Your task to perform on an android device: change the clock display to digital Image 0: 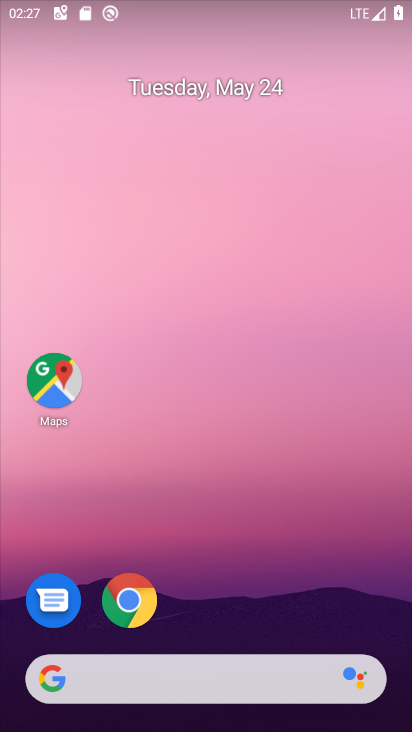
Step 0: drag from (305, 528) to (354, 34)
Your task to perform on an android device: change the clock display to digital Image 1: 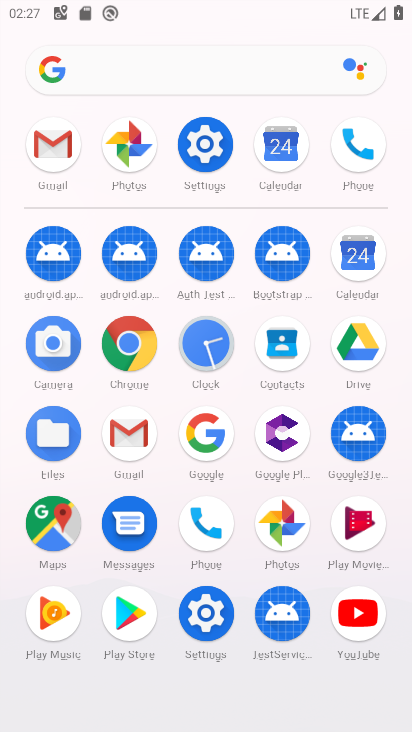
Step 1: click (214, 351)
Your task to perform on an android device: change the clock display to digital Image 2: 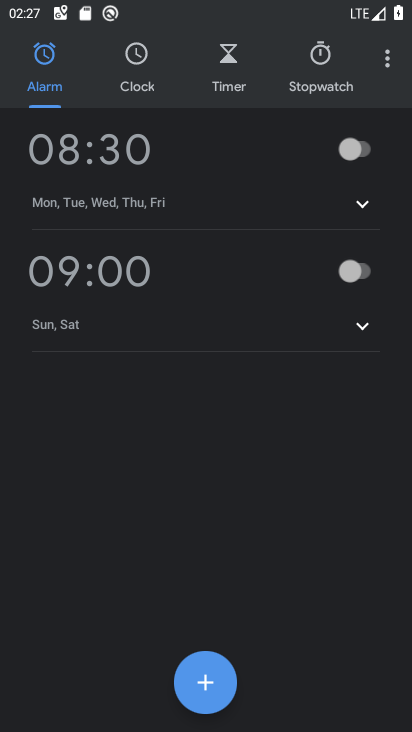
Step 2: click (374, 40)
Your task to perform on an android device: change the clock display to digital Image 3: 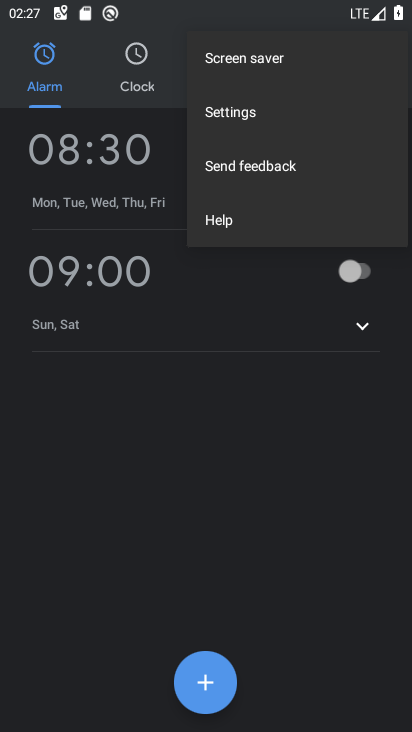
Step 3: click (308, 114)
Your task to perform on an android device: change the clock display to digital Image 4: 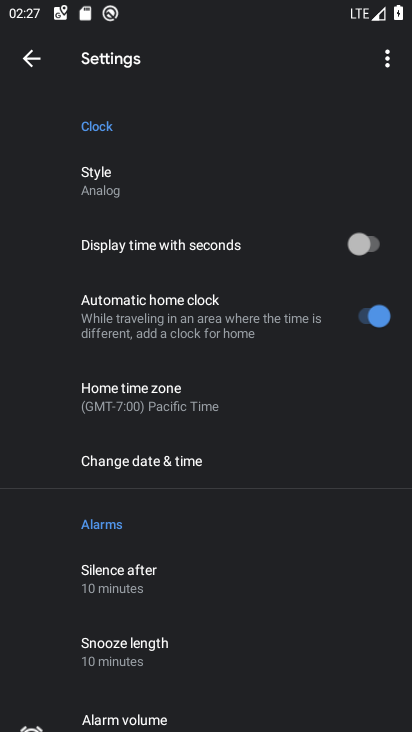
Step 4: click (216, 460)
Your task to perform on an android device: change the clock display to digital Image 5: 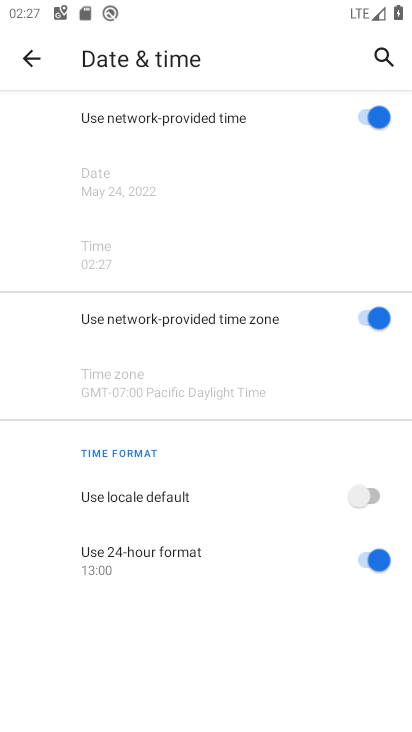
Step 5: press back button
Your task to perform on an android device: change the clock display to digital Image 6: 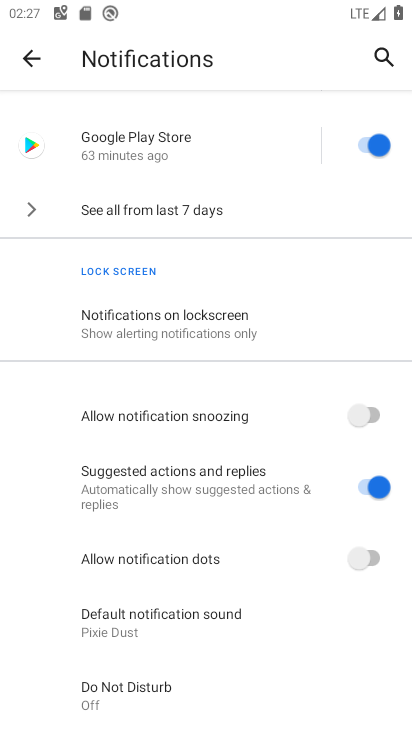
Step 6: drag from (178, 406) to (182, 28)
Your task to perform on an android device: change the clock display to digital Image 7: 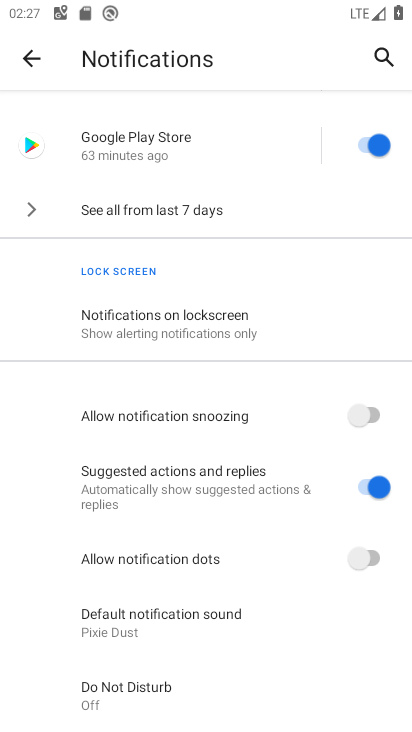
Step 7: drag from (206, 207) to (205, 507)
Your task to perform on an android device: change the clock display to digital Image 8: 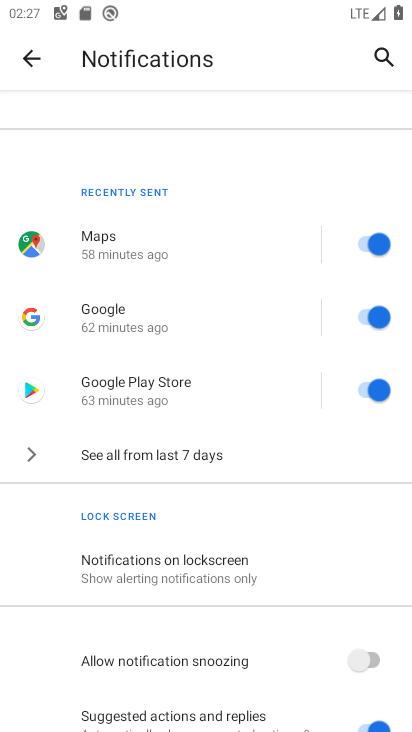
Step 8: drag from (208, 228) to (207, 517)
Your task to perform on an android device: change the clock display to digital Image 9: 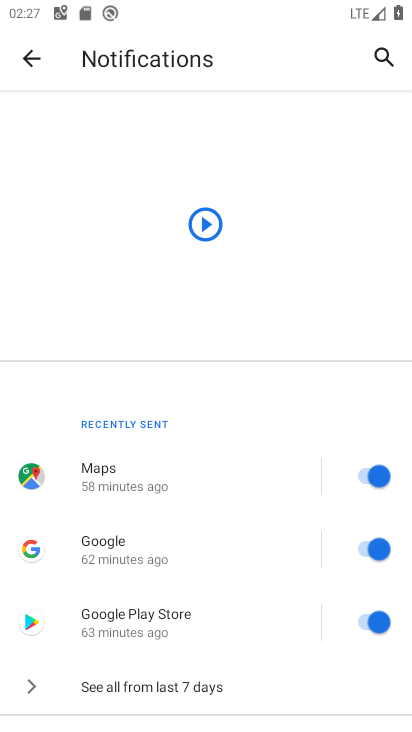
Step 9: press back button
Your task to perform on an android device: change the clock display to digital Image 10: 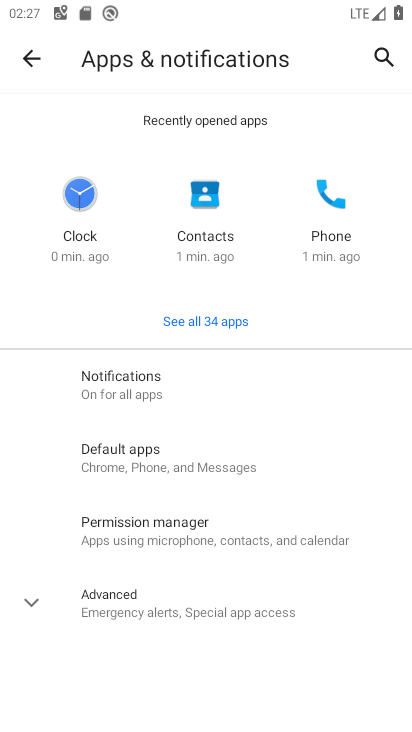
Step 10: press back button
Your task to perform on an android device: change the clock display to digital Image 11: 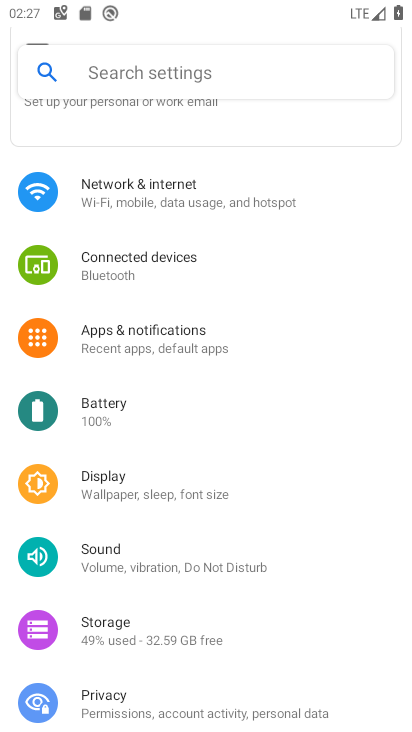
Step 11: press back button
Your task to perform on an android device: change the clock display to digital Image 12: 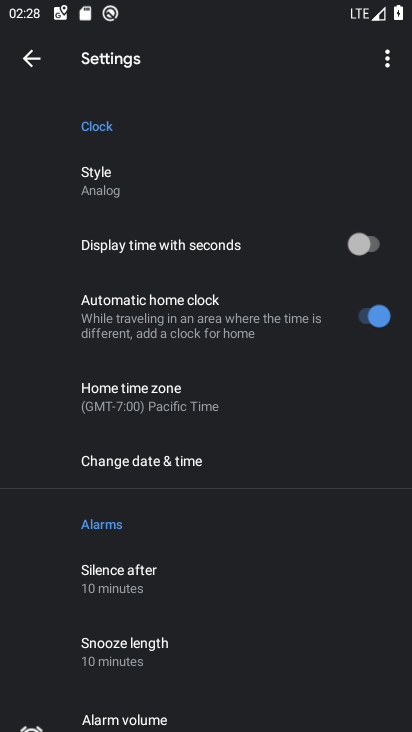
Step 12: click (189, 183)
Your task to perform on an android device: change the clock display to digital Image 13: 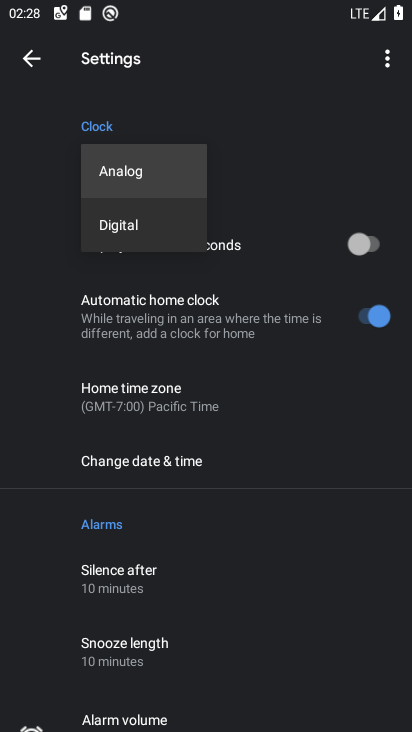
Step 13: click (152, 216)
Your task to perform on an android device: change the clock display to digital Image 14: 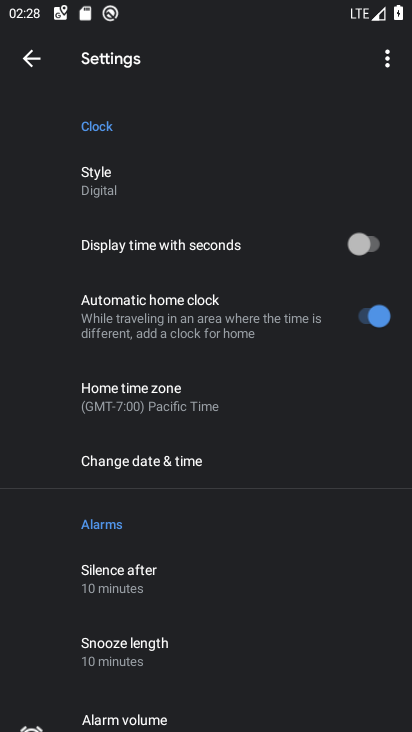
Step 14: task complete